Your task to perform on an android device: turn on airplane mode Image 0: 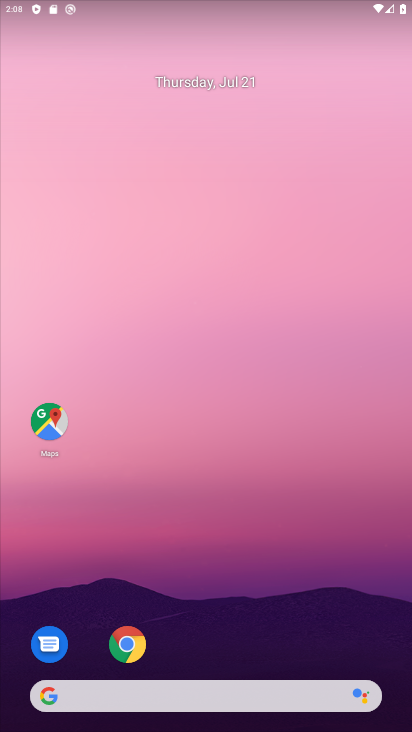
Step 0: drag from (206, 670) to (131, 67)
Your task to perform on an android device: turn on airplane mode Image 1: 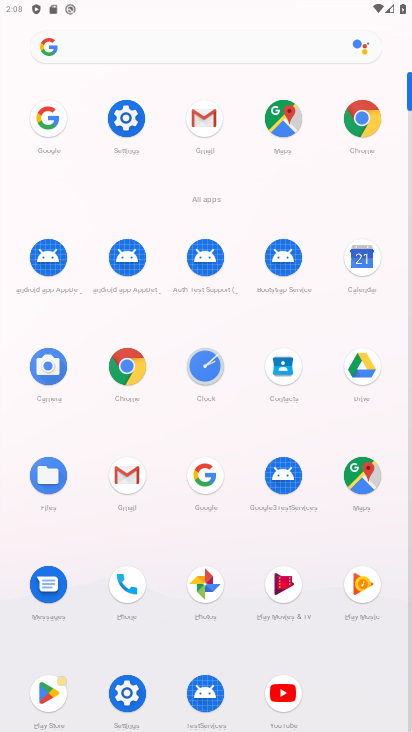
Step 1: click (136, 114)
Your task to perform on an android device: turn on airplane mode Image 2: 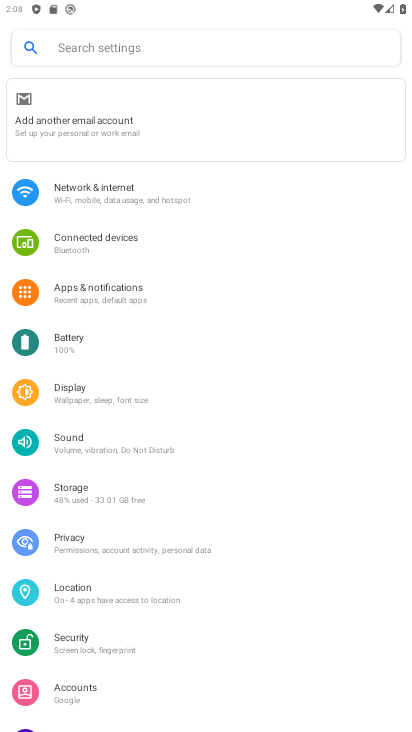
Step 2: click (151, 204)
Your task to perform on an android device: turn on airplane mode Image 3: 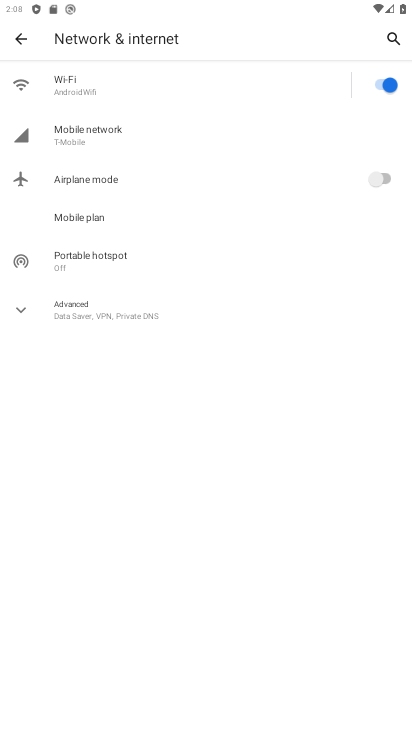
Step 3: click (372, 189)
Your task to perform on an android device: turn on airplane mode Image 4: 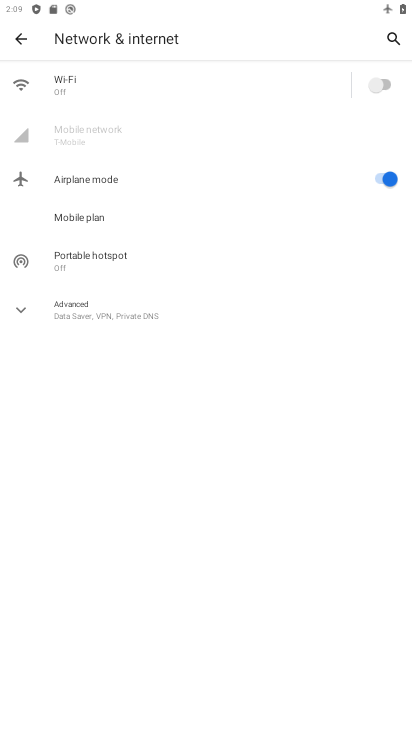
Step 4: task complete